Your task to perform on an android device: toggle improve location accuracy Image 0: 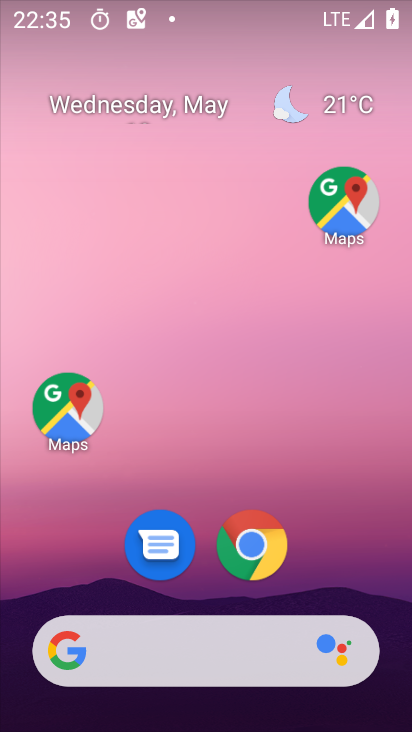
Step 0: drag from (329, 583) to (362, 50)
Your task to perform on an android device: toggle improve location accuracy Image 1: 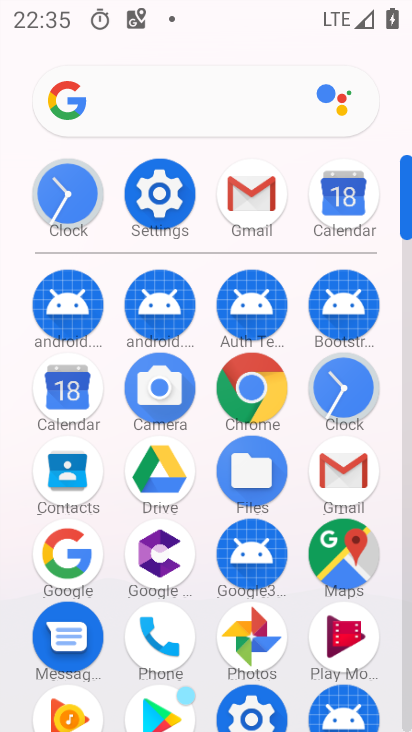
Step 1: click (169, 199)
Your task to perform on an android device: toggle improve location accuracy Image 2: 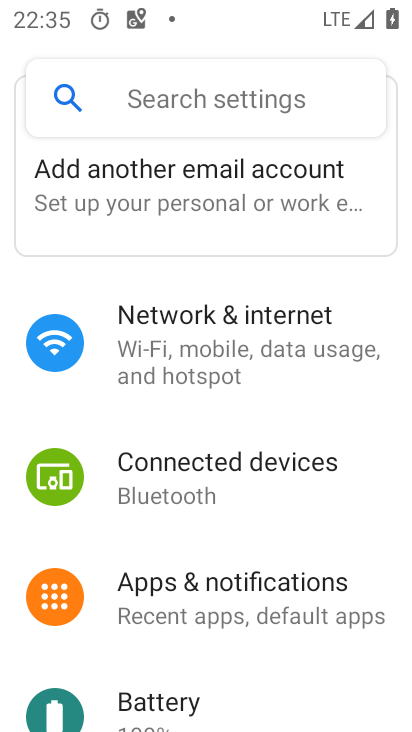
Step 2: drag from (202, 638) to (226, 407)
Your task to perform on an android device: toggle improve location accuracy Image 3: 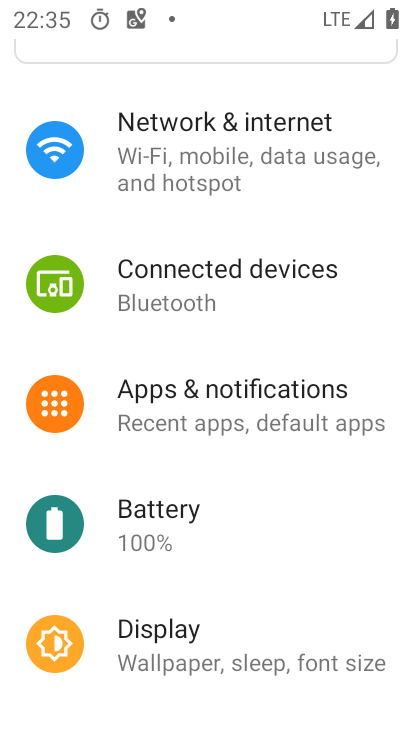
Step 3: drag from (258, 593) to (306, 391)
Your task to perform on an android device: toggle improve location accuracy Image 4: 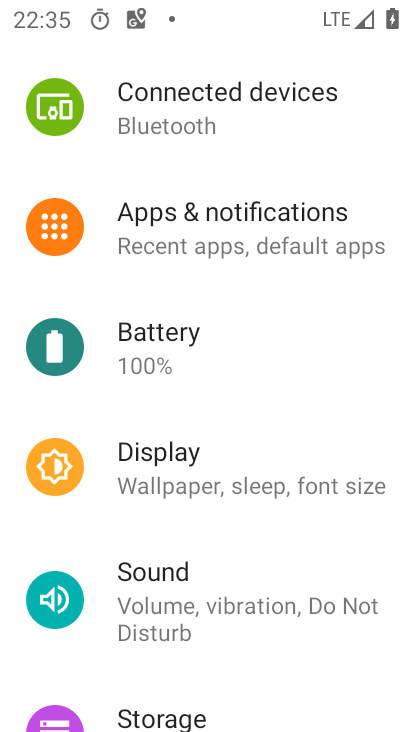
Step 4: drag from (316, 629) to (299, 415)
Your task to perform on an android device: toggle improve location accuracy Image 5: 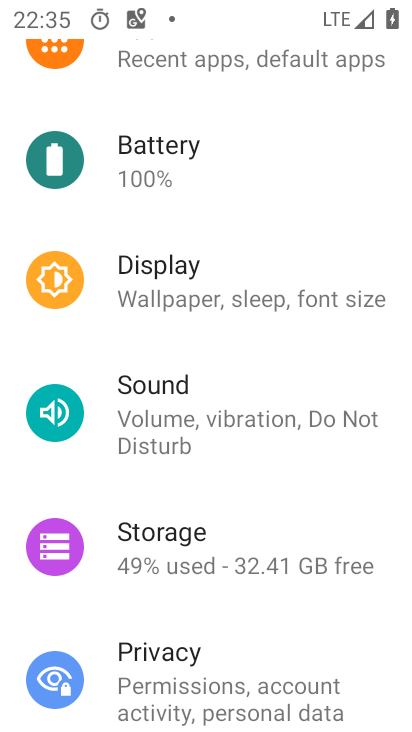
Step 5: drag from (225, 629) to (216, 445)
Your task to perform on an android device: toggle improve location accuracy Image 6: 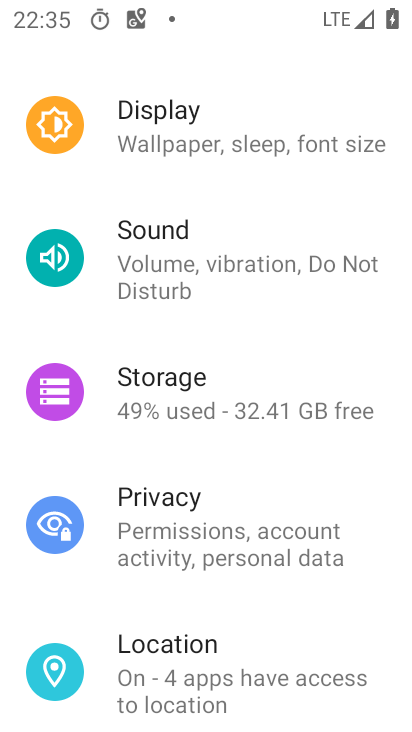
Step 6: click (219, 658)
Your task to perform on an android device: toggle improve location accuracy Image 7: 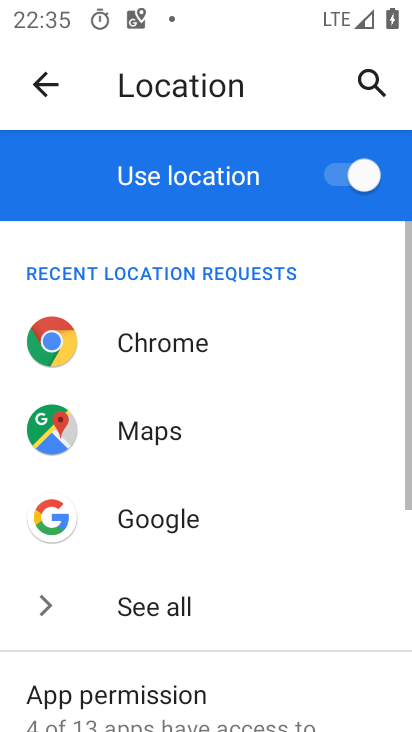
Step 7: drag from (220, 654) to (270, 419)
Your task to perform on an android device: toggle improve location accuracy Image 8: 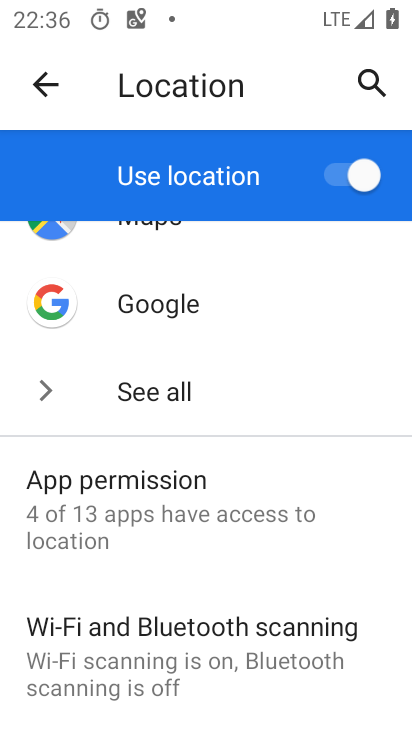
Step 8: drag from (272, 617) to (296, 441)
Your task to perform on an android device: toggle improve location accuracy Image 9: 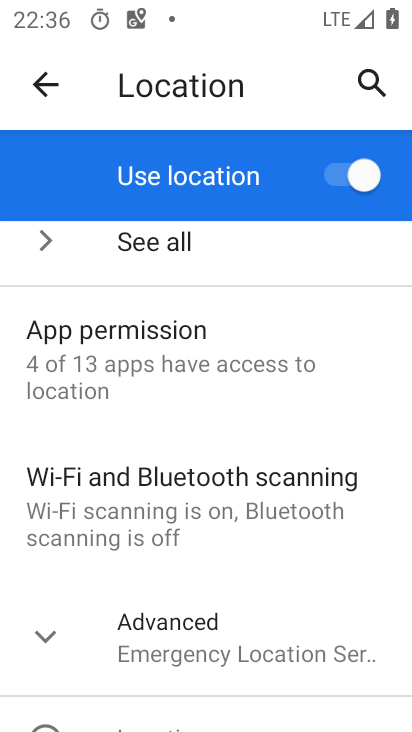
Step 9: click (225, 651)
Your task to perform on an android device: toggle improve location accuracy Image 10: 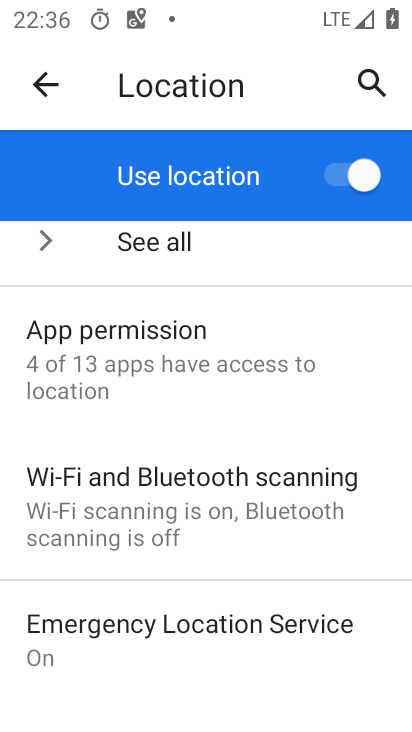
Step 10: drag from (221, 652) to (223, 428)
Your task to perform on an android device: toggle improve location accuracy Image 11: 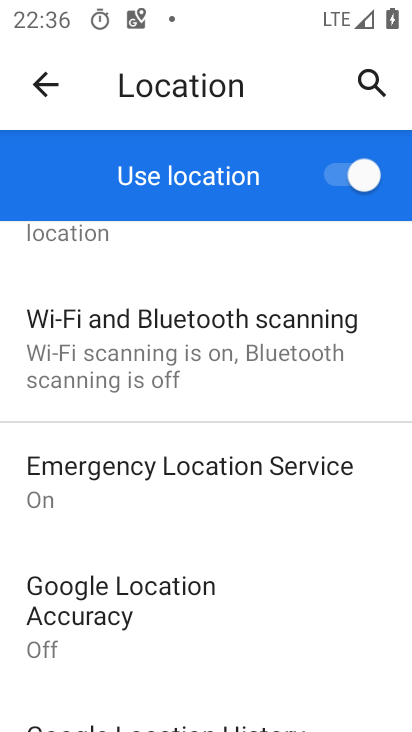
Step 11: click (179, 633)
Your task to perform on an android device: toggle improve location accuracy Image 12: 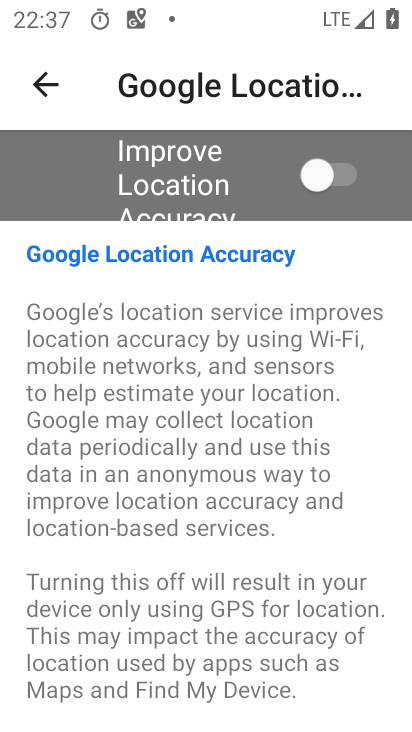
Step 12: click (345, 177)
Your task to perform on an android device: toggle improve location accuracy Image 13: 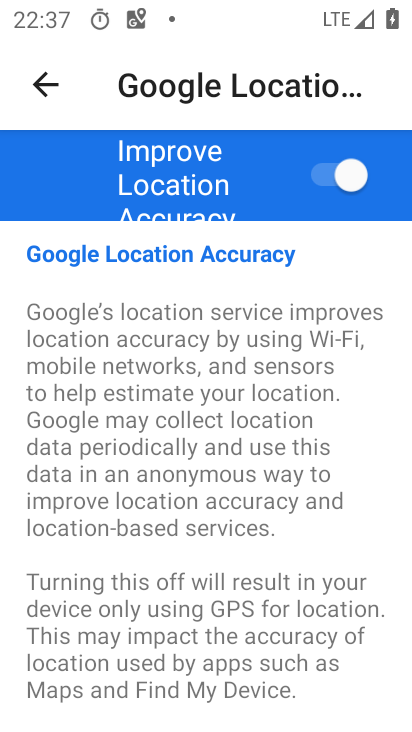
Step 13: task complete